Your task to perform on an android device: Go to Wikipedia Image 0: 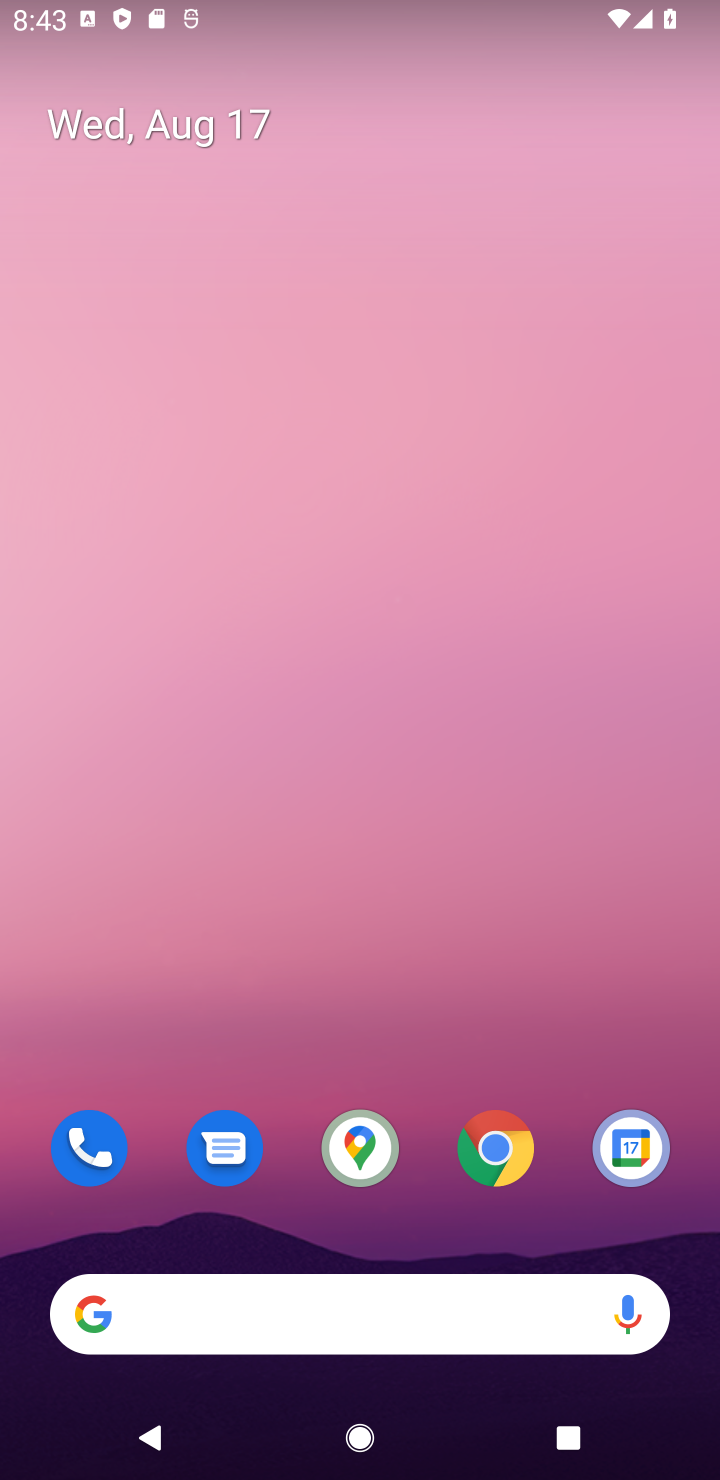
Step 0: click (496, 1154)
Your task to perform on an android device: Go to Wikipedia Image 1: 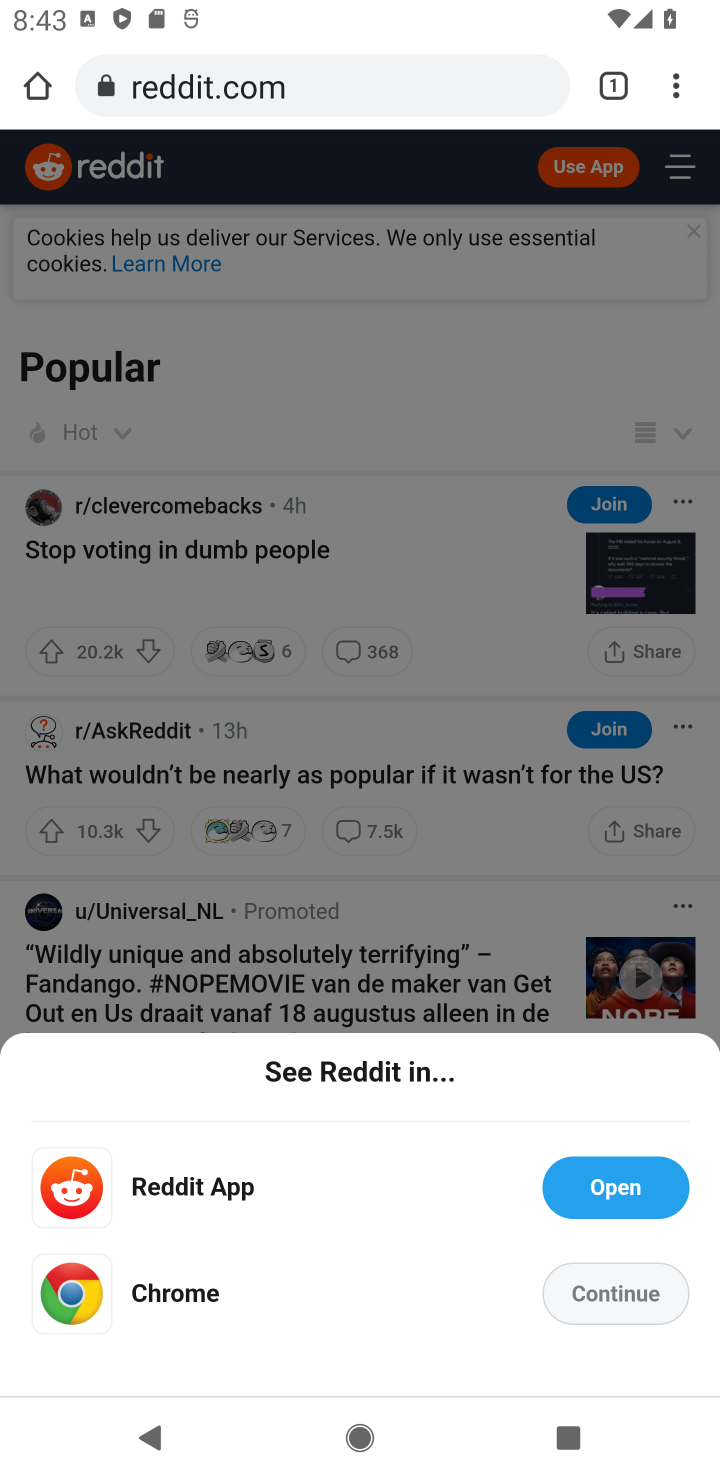
Step 1: click (400, 88)
Your task to perform on an android device: Go to Wikipedia Image 2: 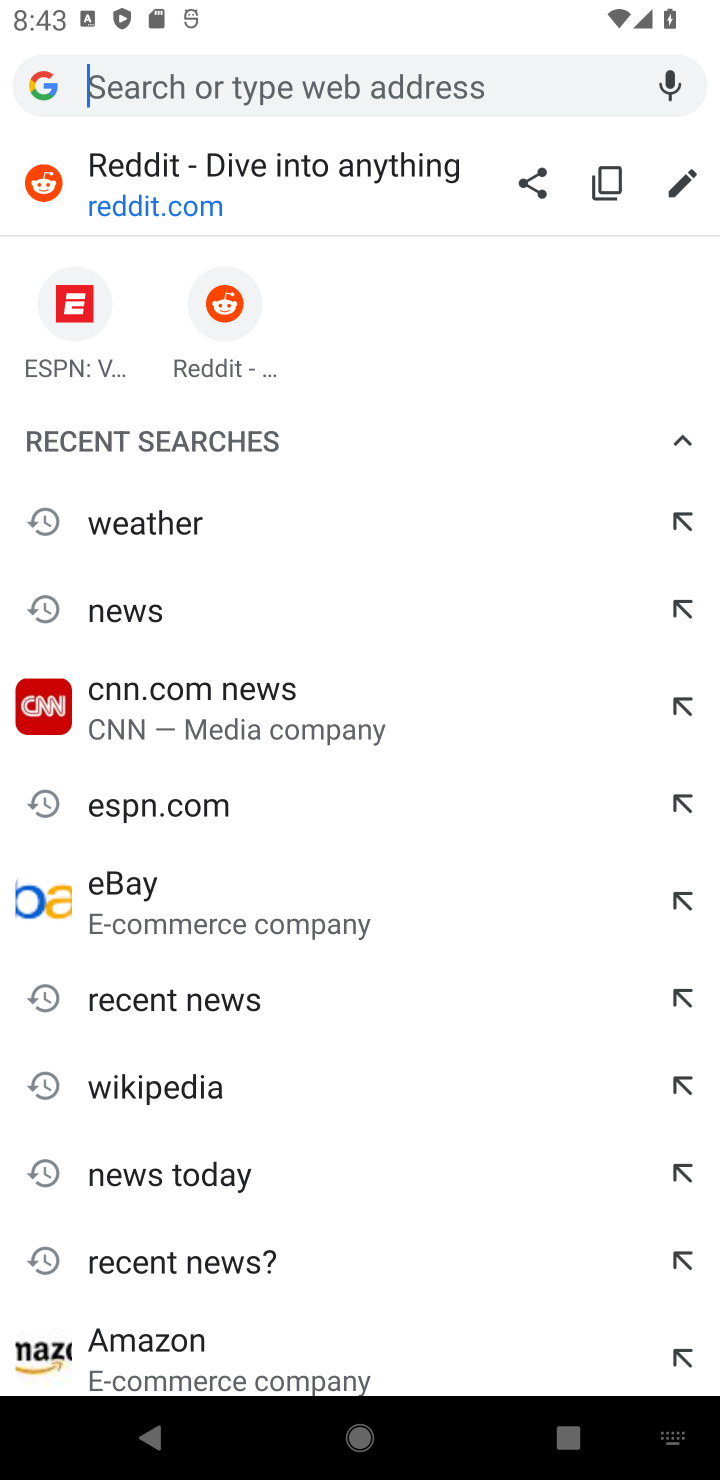
Step 2: type "Wikipedia"
Your task to perform on an android device: Go to Wikipedia Image 3: 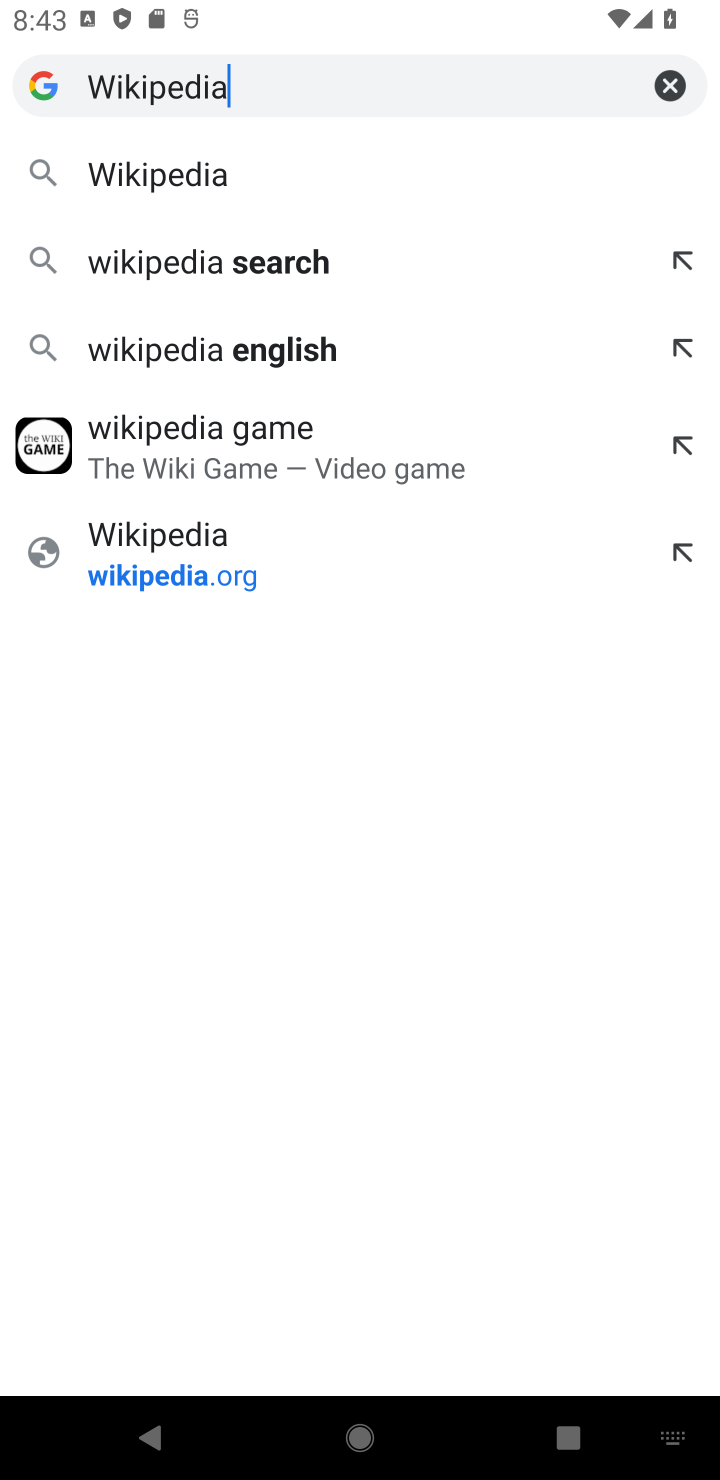
Step 3: click (196, 184)
Your task to perform on an android device: Go to Wikipedia Image 4: 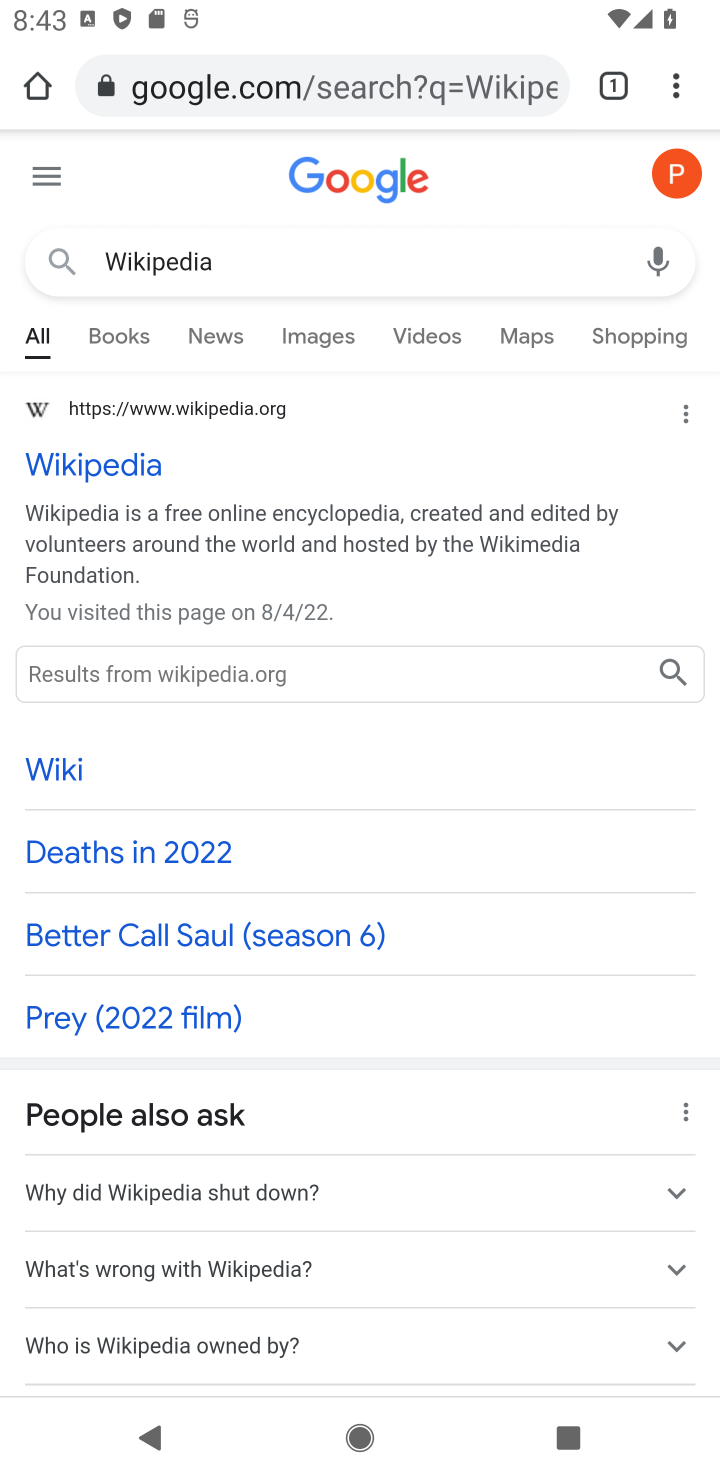
Step 4: click (108, 475)
Your task to perform on an android device: Go to Wikipedia Image 5: 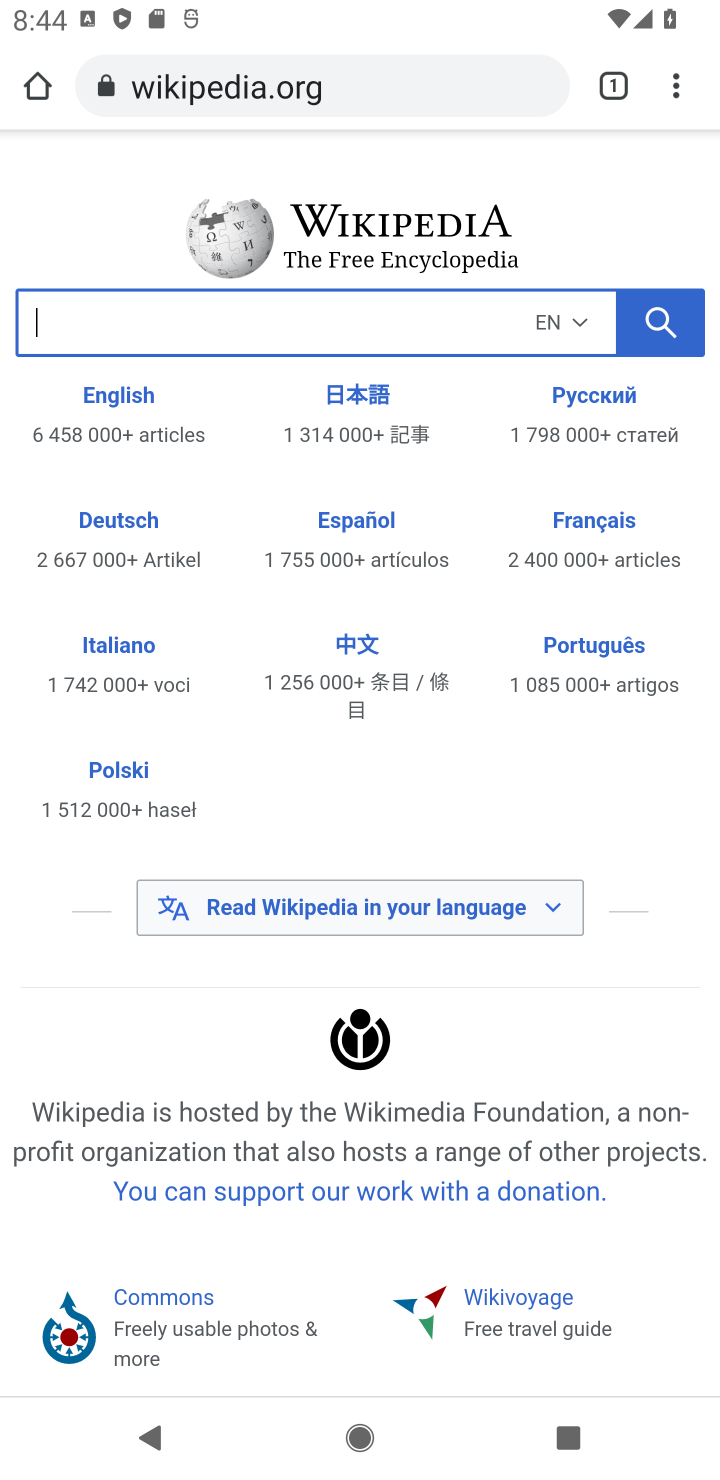
Step 5: task complete